Your task to perform on an android device: install app "VLC for Android" Image 0: 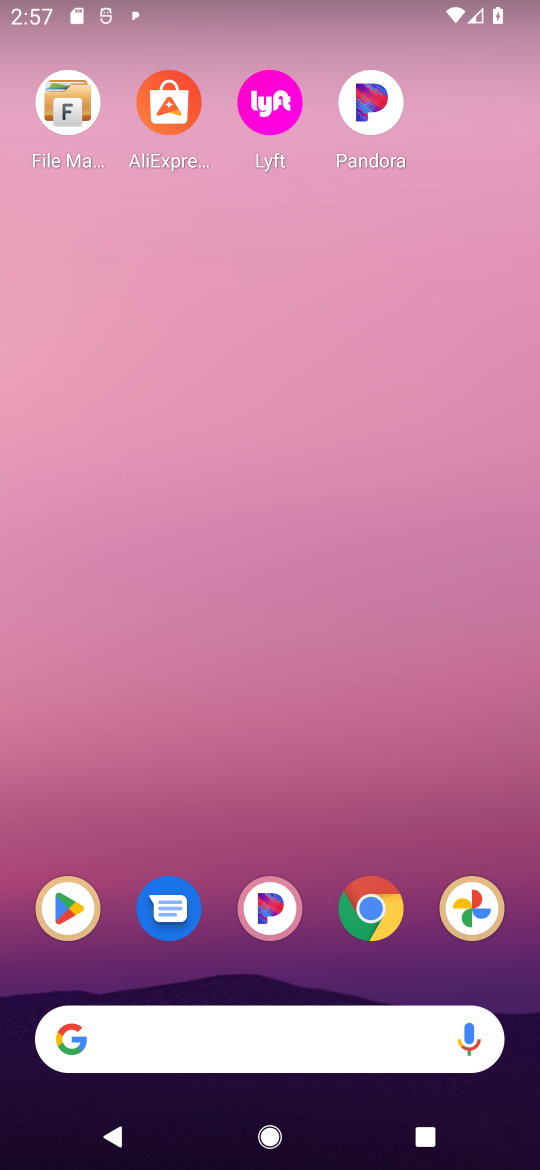
Step 0: click (73, 933)
Your task to perform on an android device: install app "VLC for Android" Image 1: 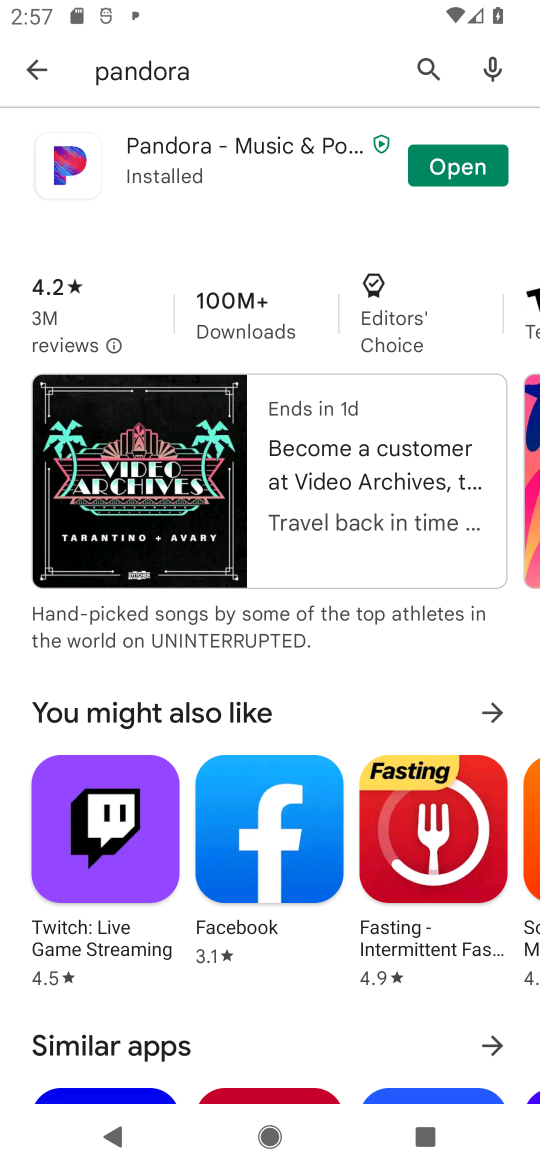
Step 1: click (34, 60)
Your task to perform on an android device: install app "VLC for Android" Image 2: 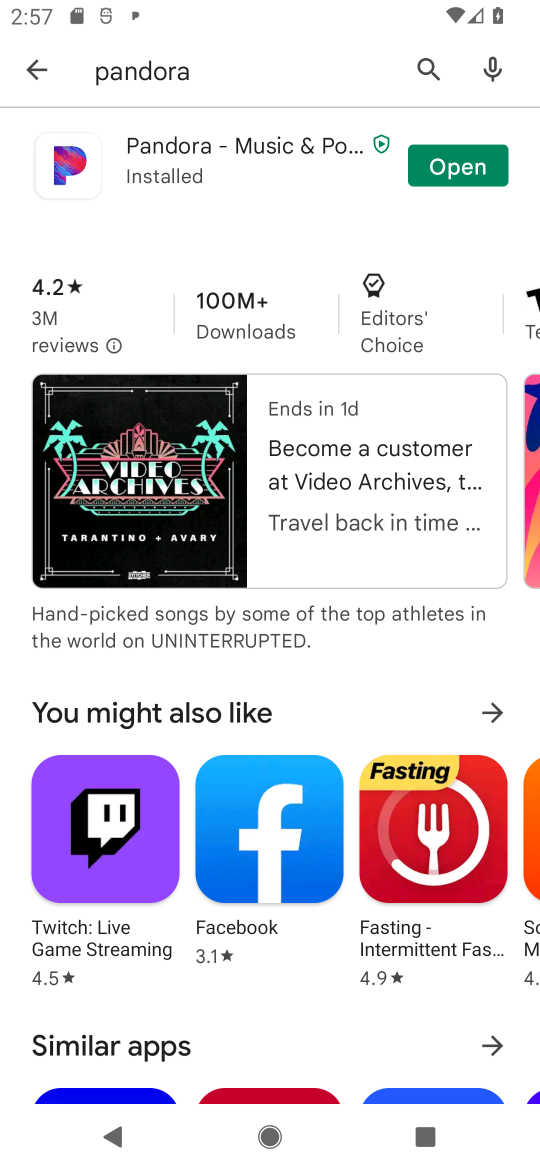
Step 2: click (64, 60)
Your task to perform on an android device: install app "VLC for Android" Image 3: 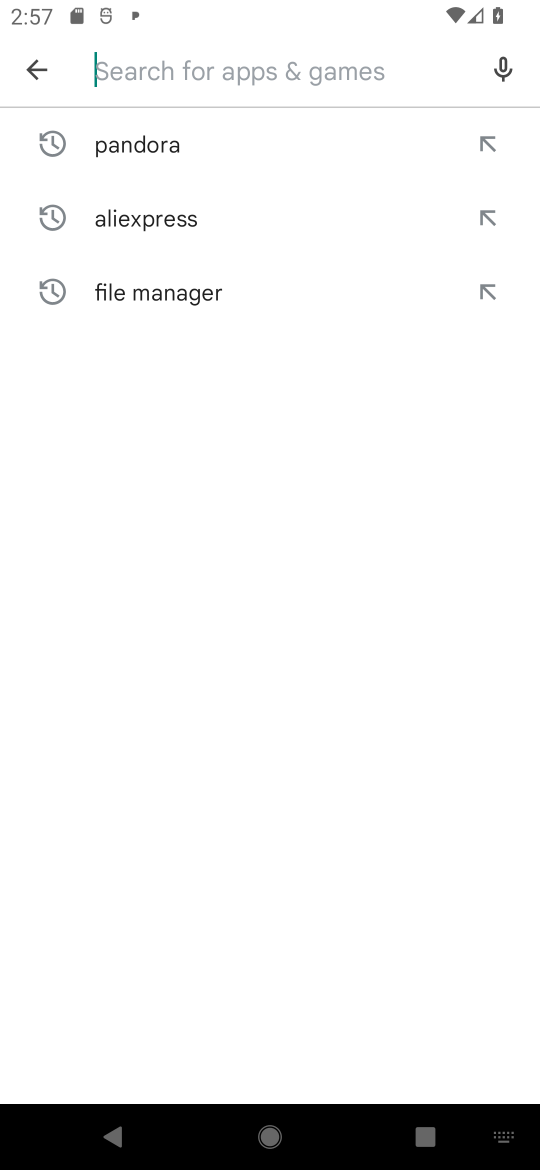
Step 3: type "VLC for Android"
Your task to perform on an android device: install app "VLC for Android" Image 4: 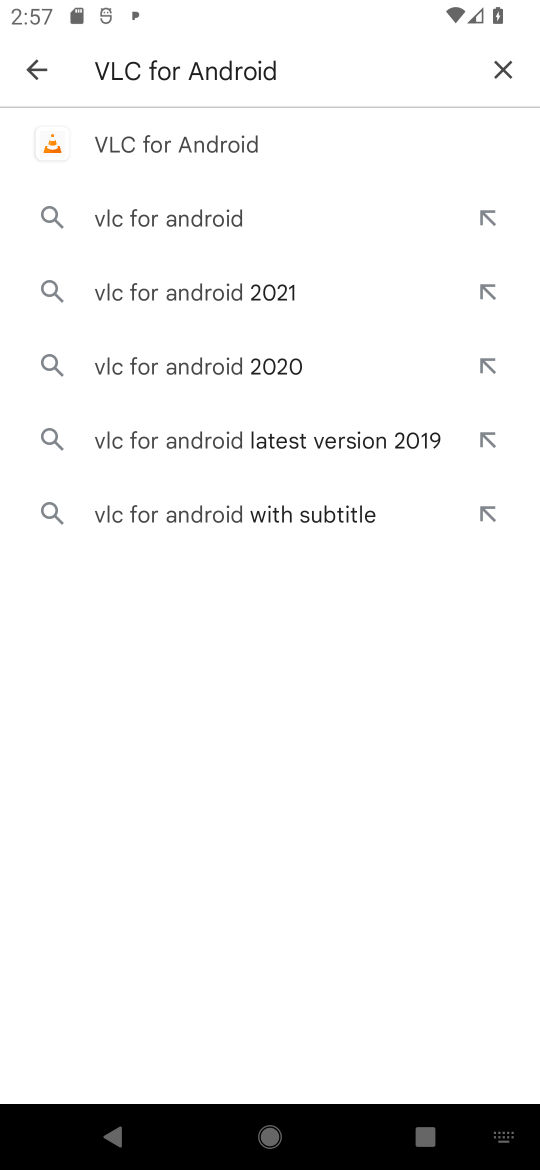
Step 4: click (184, 136)
Your task to perform on an android device: install app "VLC for Android" Image 5: 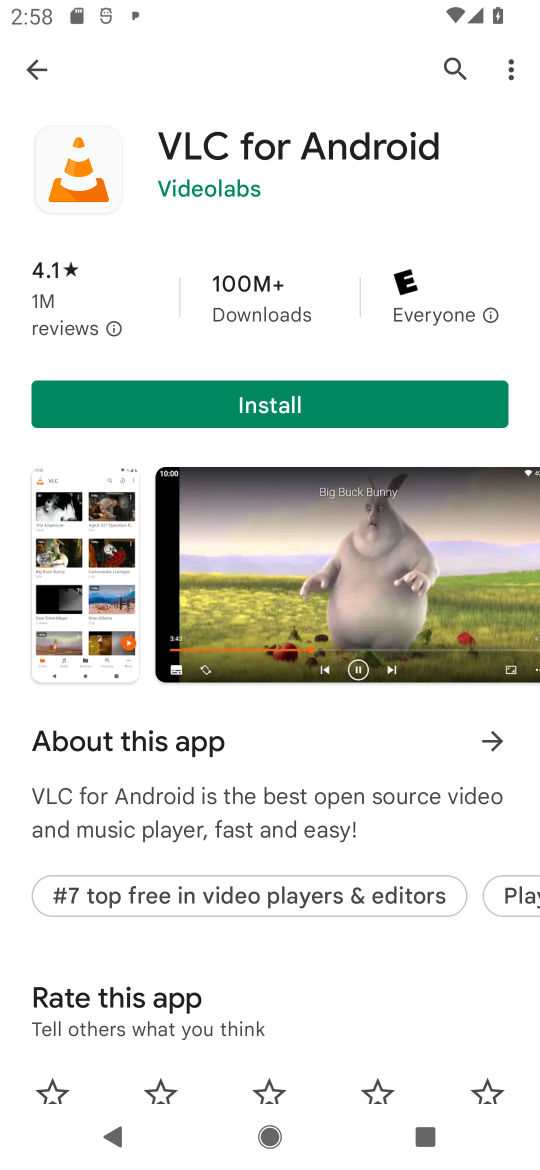
Step 5: click (221, 409)
Your task to perform on an android device: install app "VLC for Android" Image 6: 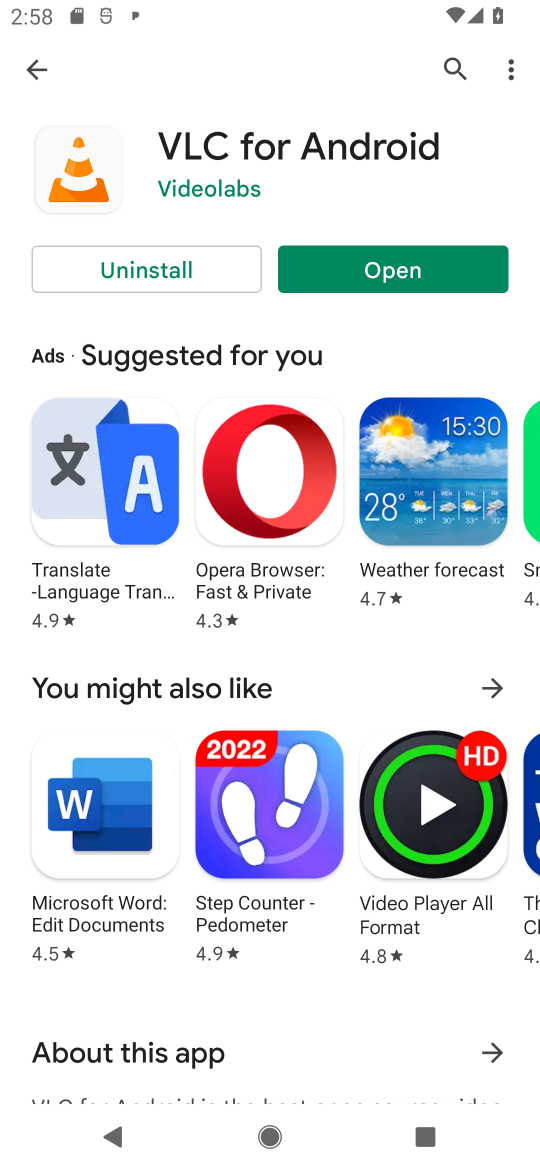
Step 6: click (343, 268)
Your task to perform on an android device: install app "VLC for Android" Image 7: 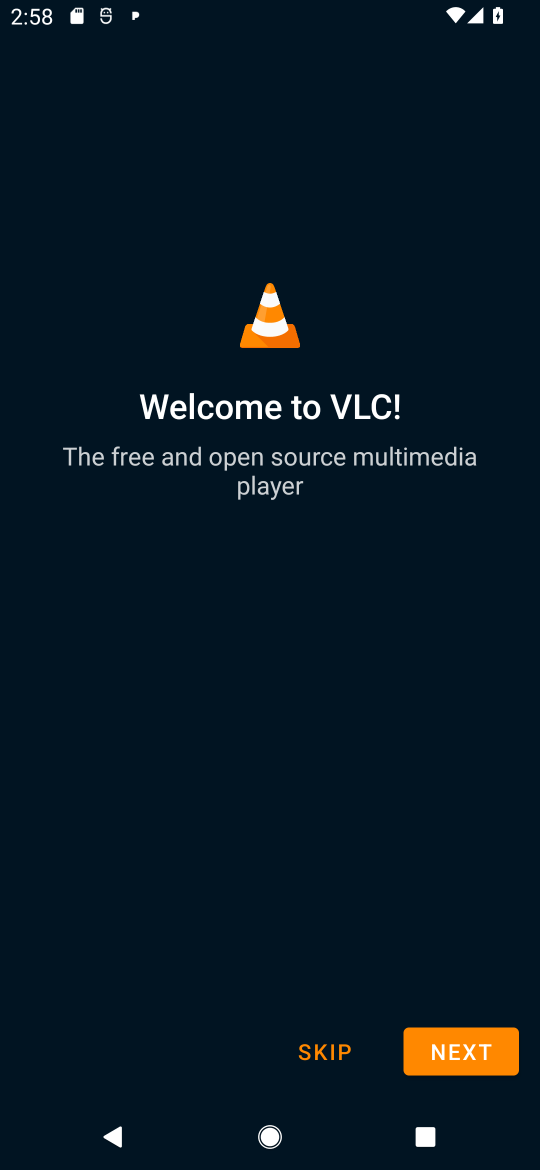
Step 7: click (331, 1068)
Your task to perform on an android device: install app "VLC for Android" Image 8: 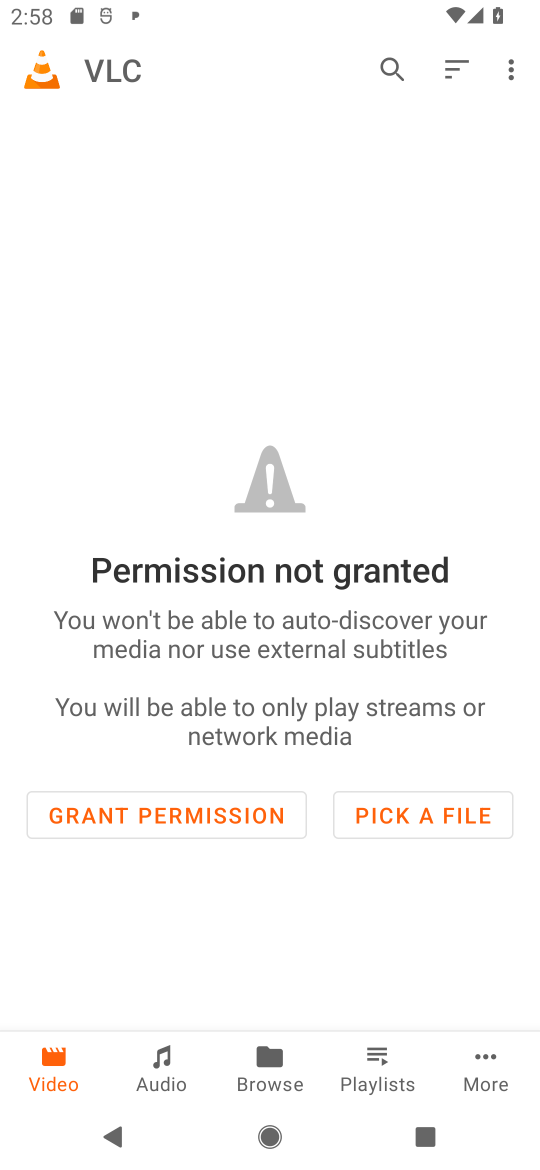
Step 8: task complete